Your task to perform on an android device: check android version Image 0: 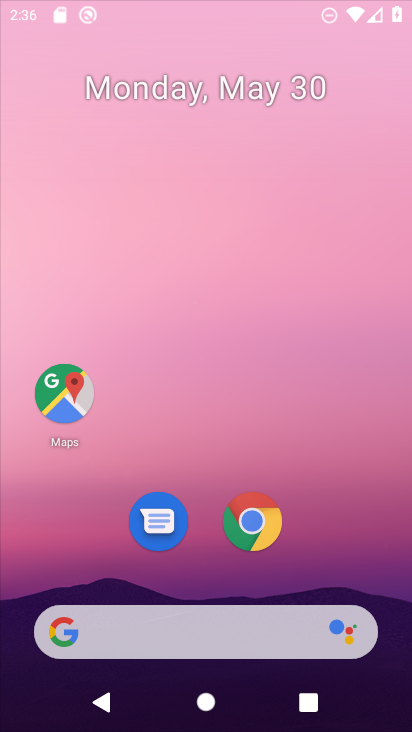
Step 0: click (208, 117)
Your task to perform on an android device: check android version Image 1: 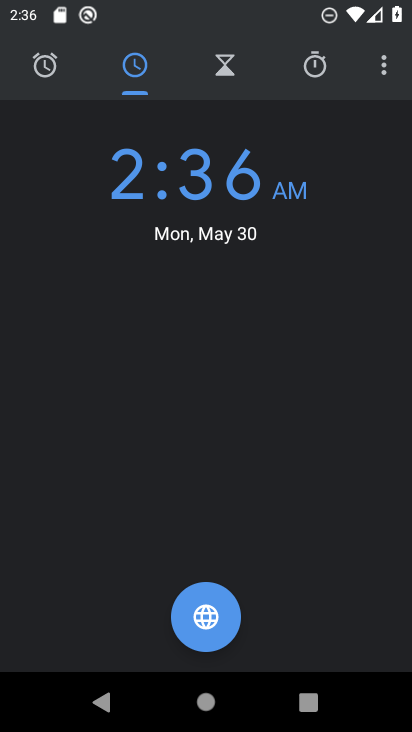
Step 1: click (387, 66)
Your task to perform on an android device: check android version Image 2: 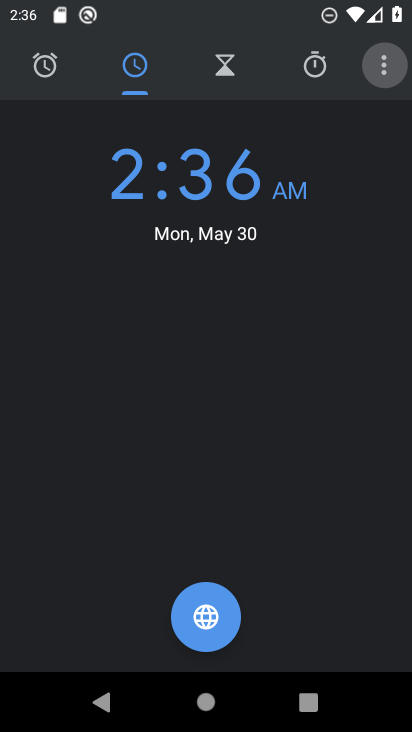
Step 2: click (387, 66)
Your task to perform on an android device: check android version Image 3: 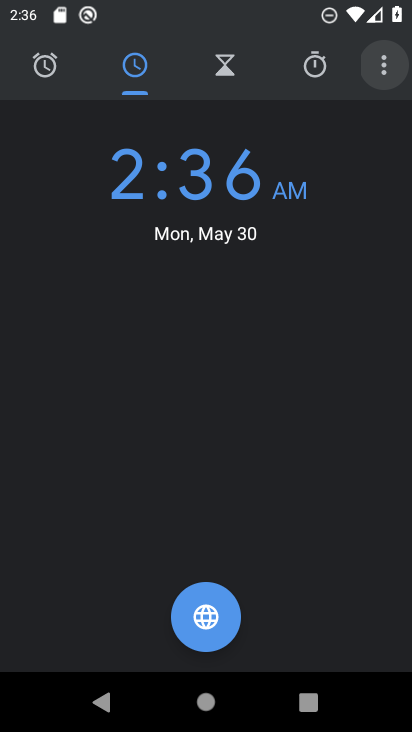
Step 3: click (387, 66)
Your task to perform on an android device: check android version Image 4: 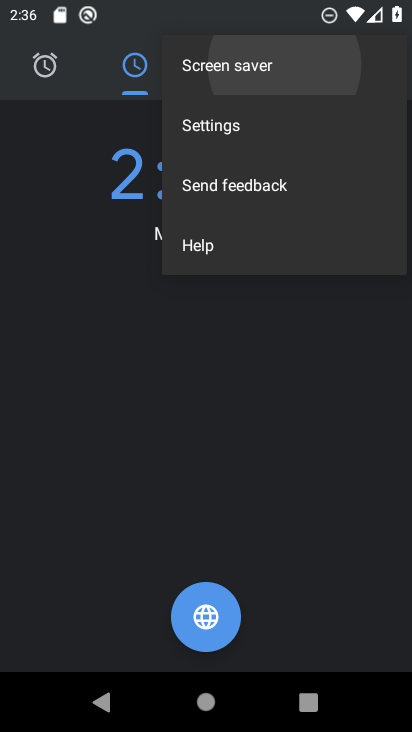
Step 4: click (386, 67)
Your task to perform on an android device: check android version Image 5: 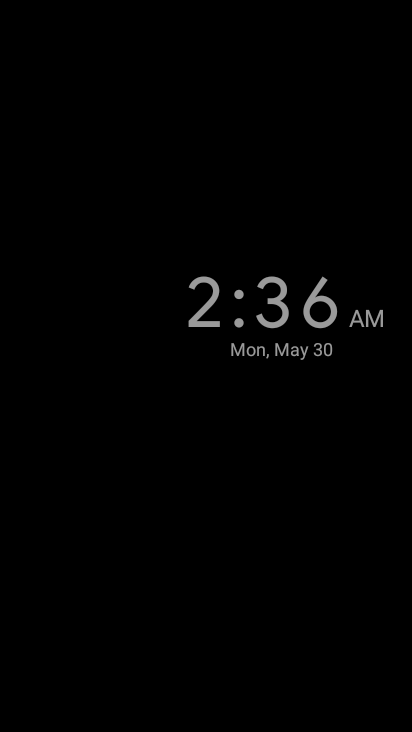
Step 5: press back button
Your task to perform on an android device: check android version Image 6: 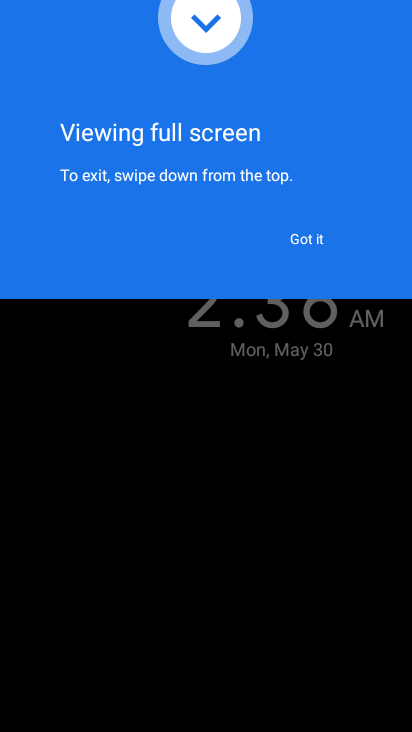
Step 6: click (290, 237)
Your task to perform on an android device: check android version Image 7: 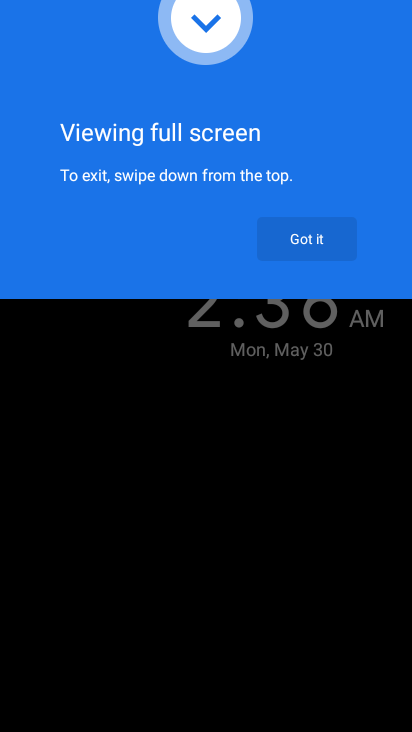
Step 7: click (292, 238)
Your task to perform on an android device: check android version Image 8: 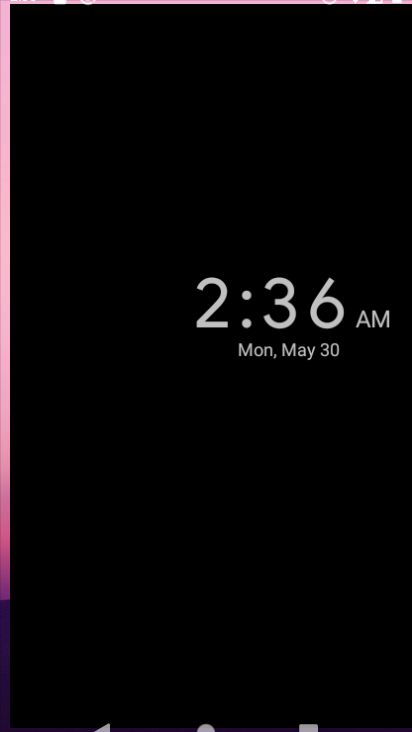
Step 8: click (292, 238)
Your task to perform on an android device: check android version Image 9: 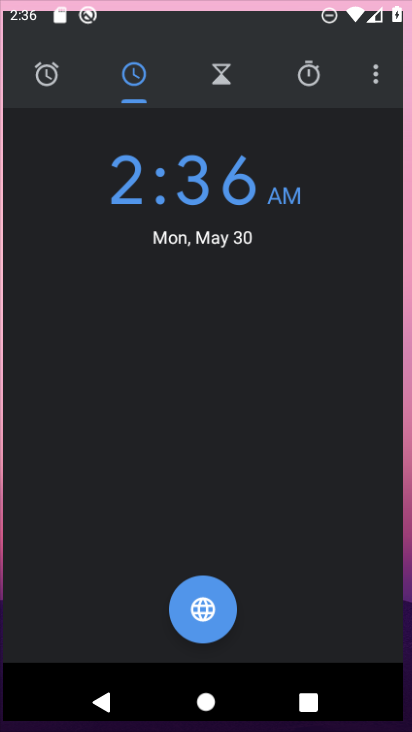
Step 9: click (299, 240)
Your task to perform on an android device: check android version Image 10: 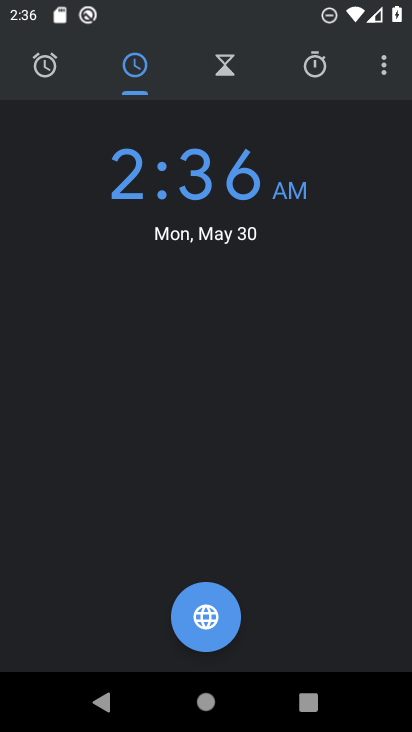
Step 10: press home button
Your task to perform on an android device: check android version Image 11: 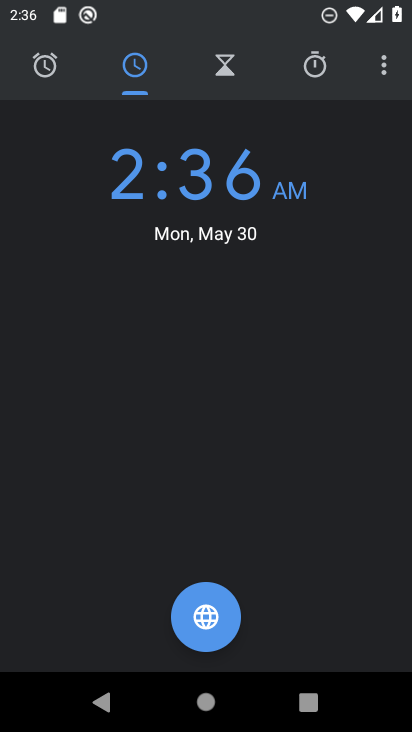
Step 11: press home button
Your task to perform on an android device: check android version Image 12: 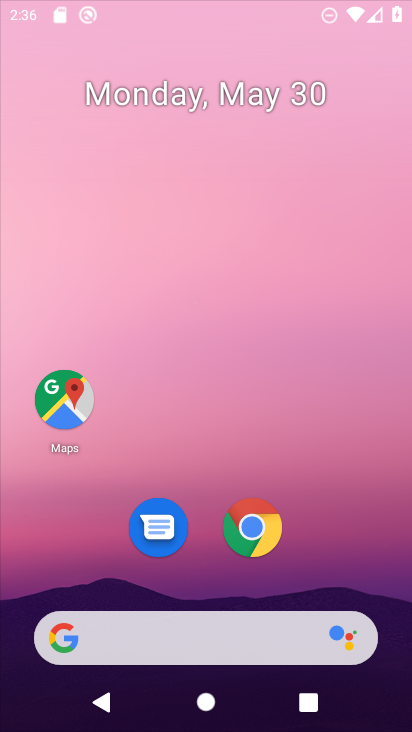
Step 12: press home button
Your task to perform on an android device: check android version Image 13: 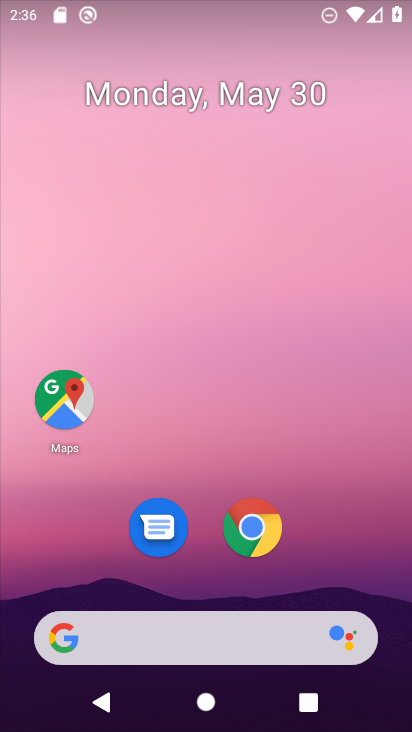
Step 13: drag from (253, 696) to (205, 223)
Your task to perform on an android device: check android version Image 14: 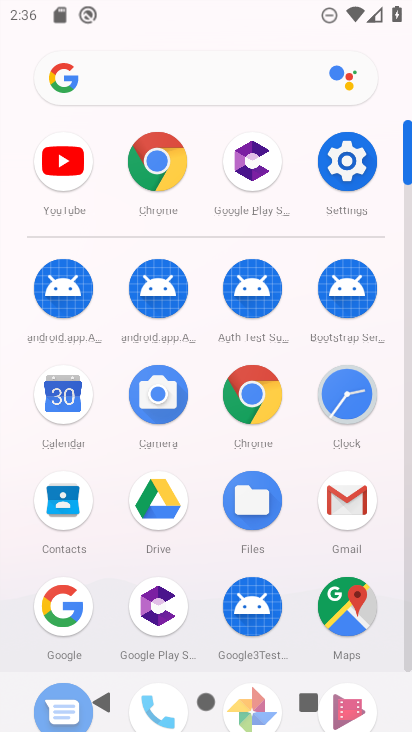
Step 14: click (157, 167)
Your task to perform on an android device: check android version Image 15: 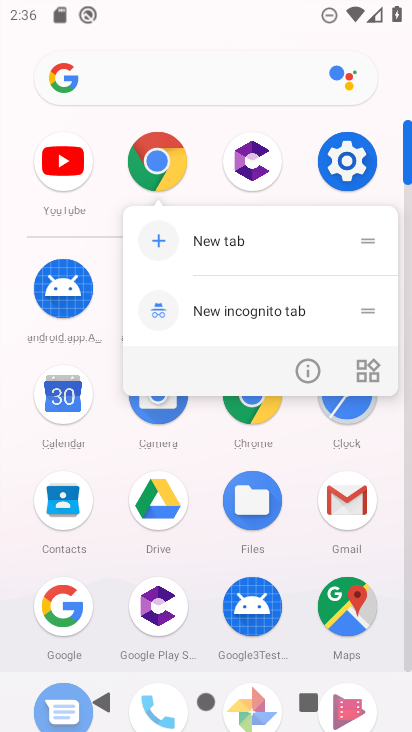
Step 15: click (350, 158)
Your task to perform on an android device: check android version Image 16: 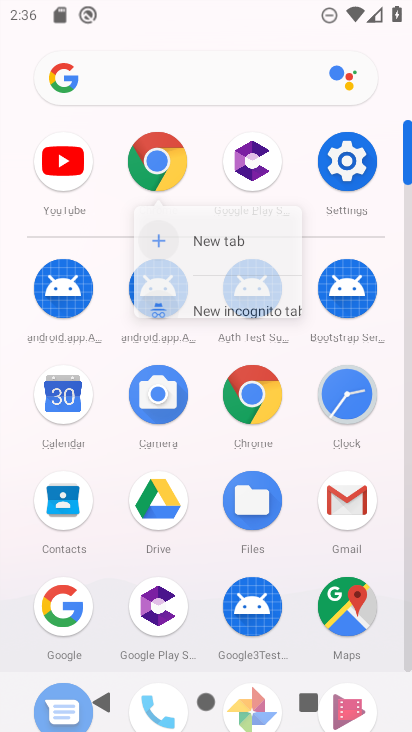
Step 16: click (350, 158)
Your task to perform on an android device: check android version Image 17: 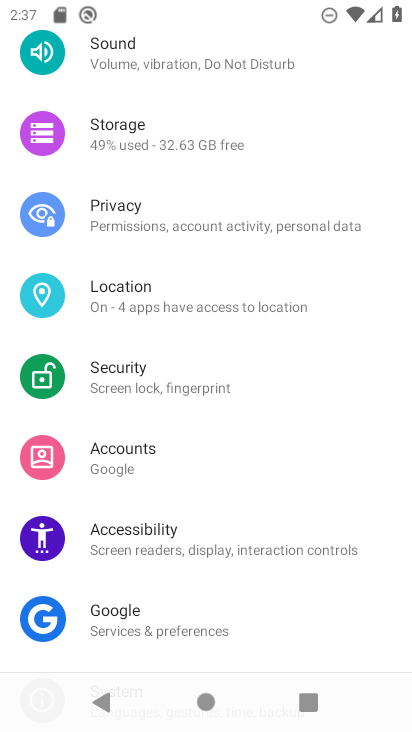
Step 17: drag from (116, 600) to (118, 360)
Your task to perform on an android device: check android version Image 18: 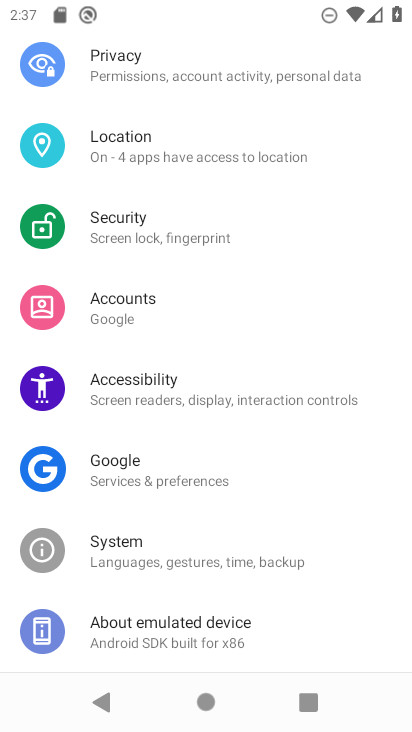
Step 18: click (176, 624)
Your task to perform on an android device: check android version Image 19: 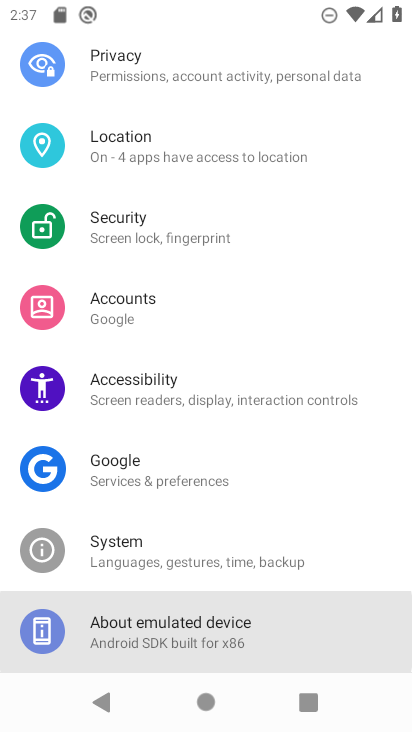
Step 19: click (176, 624)
Your task to perform on an android device: check android version Image 20: 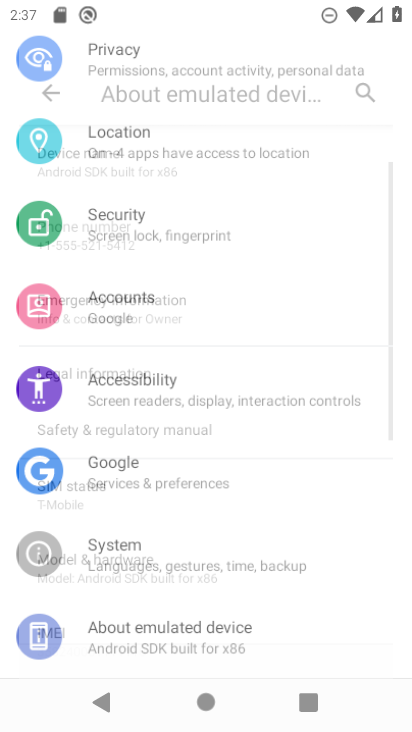
Step 20: click (176, 624)
Your task to perform on an android device: check android version Image 21: 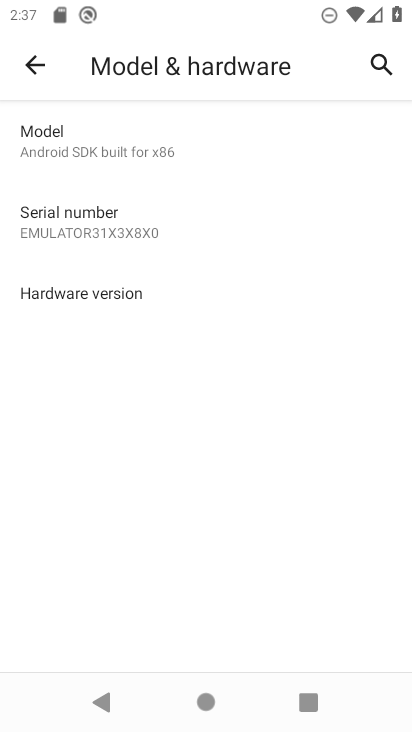
Step 21: click (43, 61)
Your task to perform on an android device: check android version Image 22: 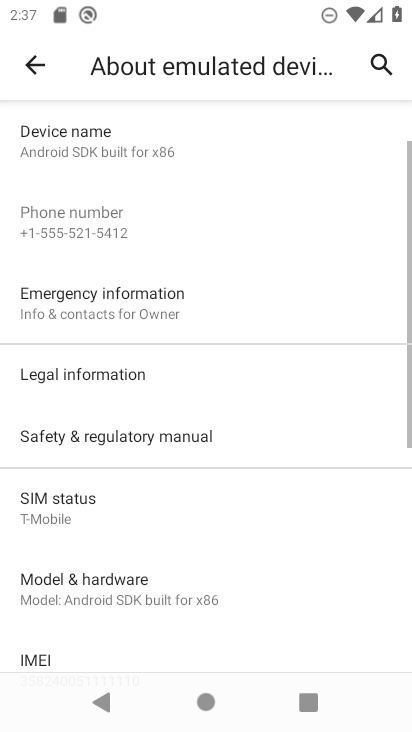
Step 22: task complete